Your task to perform on an android device: visit the assistant section in the google photos Image 0: 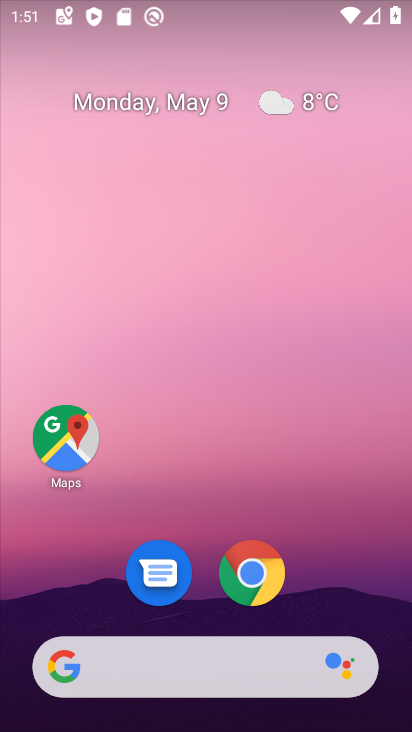
Step 0: drag from (194, 595) to (191, 160)
Your task to perform on an android device: visit the assistant section in the google photos Image 1: 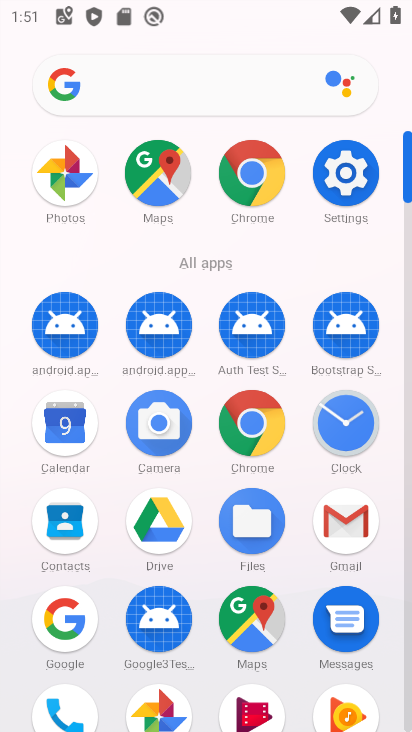
Step 1: click (161, 711)
Your task to perform on an android device: visit the assistant section in the google photos Image 2: 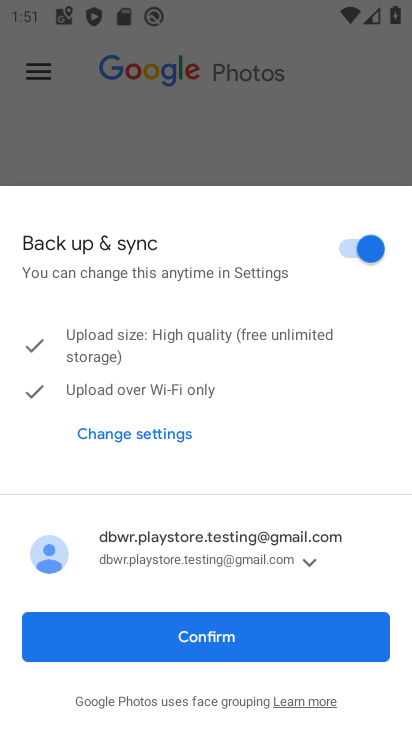
Step 2: click (238, 650)
Your task to perform on an android device: visit the assistant section in the google photos Image 3: 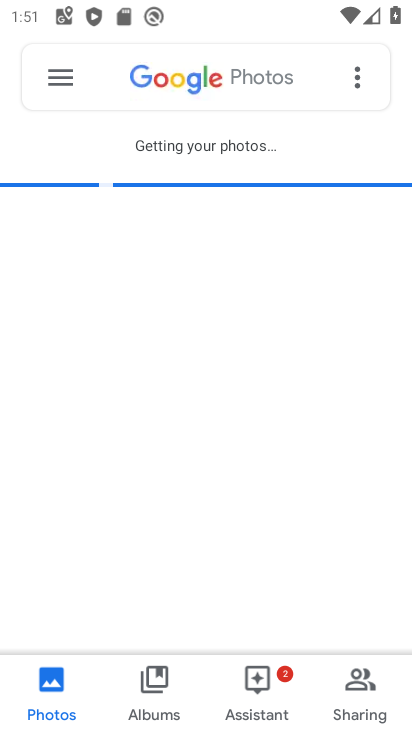
Step 3: click (257, 700)
Your task to perform on an android device: visit the assistant section in the google photos Image 4: 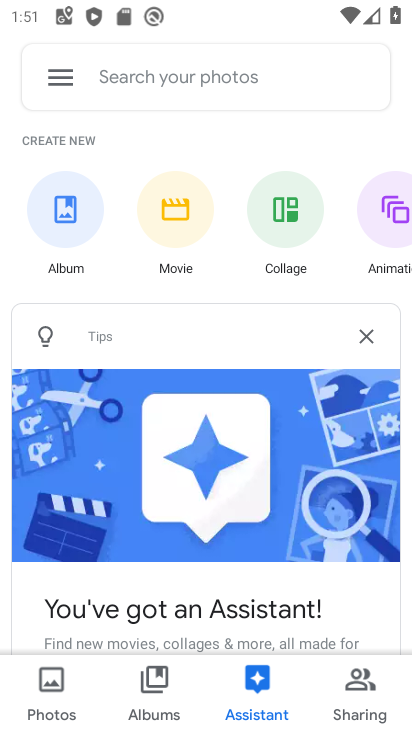
Step 4: task complete